Your task to perform on an android device: Open Youtube and go to "Your channel" Image 0: 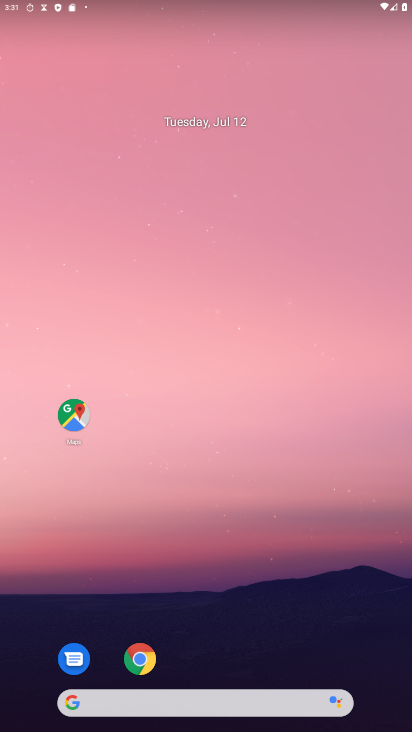
Step 0: drag from (247, 660) to (246, 227)
Your task to perform on an android device: Open Youtube and go to "Your channel" Image 1: 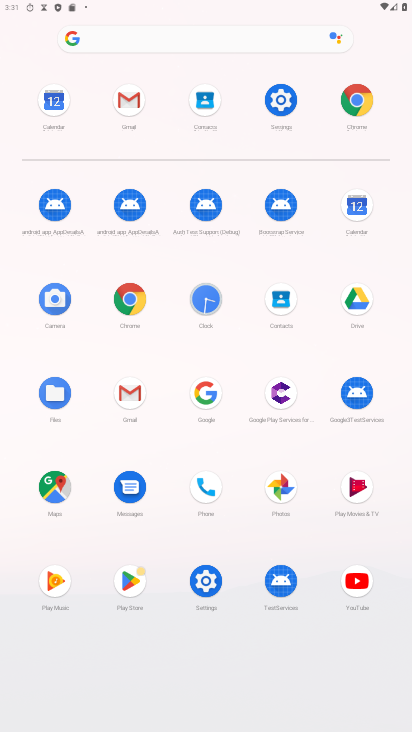
Step 1: click (359, 586)
Your task to perform on an android device: Open Youtube and go to "Your channel" Image 2: 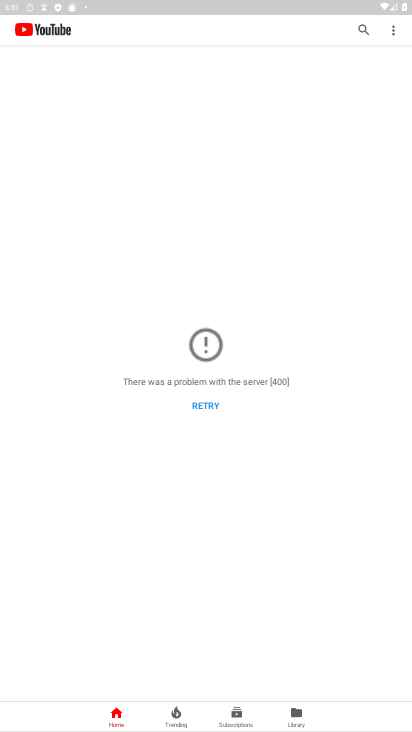
Step 2: task complete